Your task to perform on an android device: turn pop-ups on in chrome Image 0: 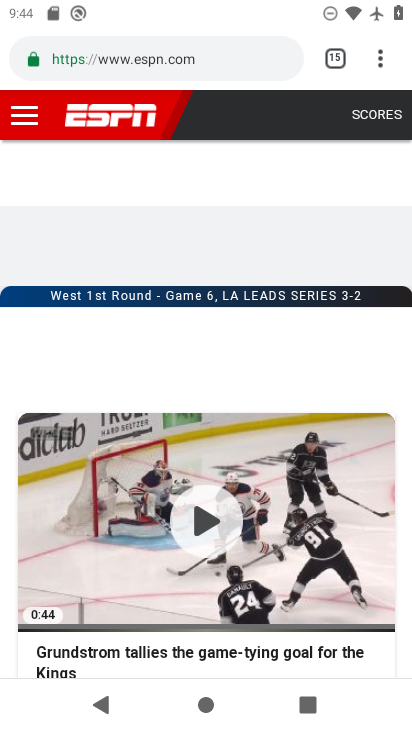
Step 0: press home button
Your task to perform on an android device: turn pop-ups on in chrome Image 1: 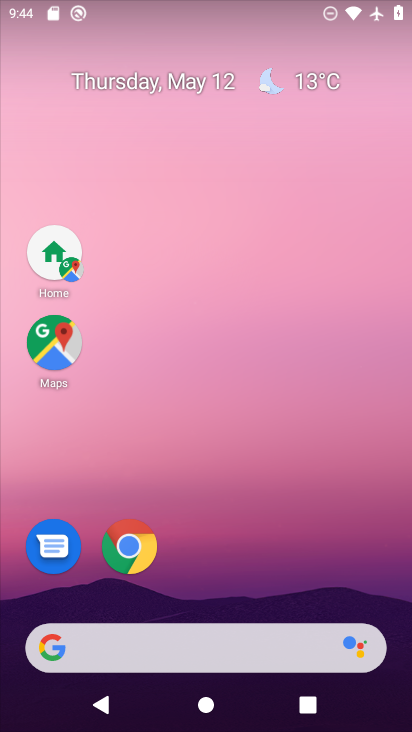
Step 1: drag from (138, 653) to (338, 156)
Your task to perform on an android device: turn pop-ups on in chrome Image 2: 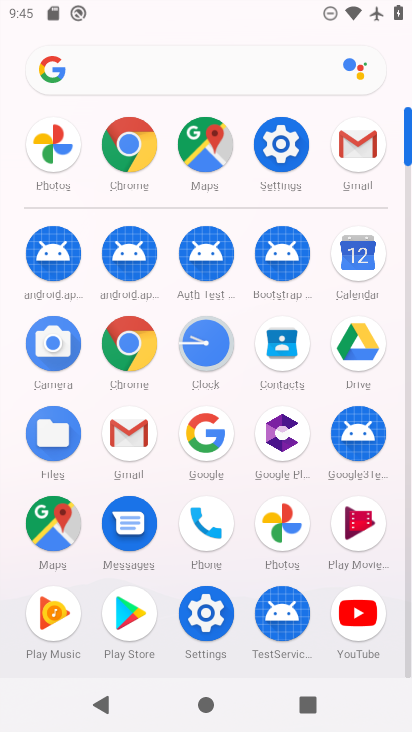
Step 2: click (133, 146)
Your task to perform on an android device: turn pop-ups on in chrome Image 3: 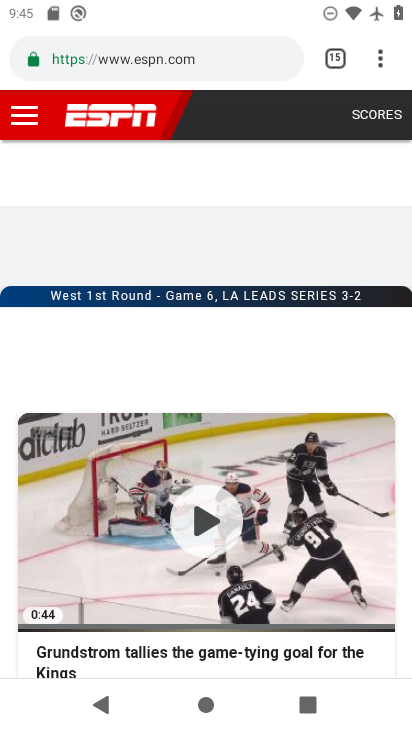
Step 3: drag from (380, 64) to (227, 576)
Your task to perform on an android device: turn pop-ups on in chrome Image 4: 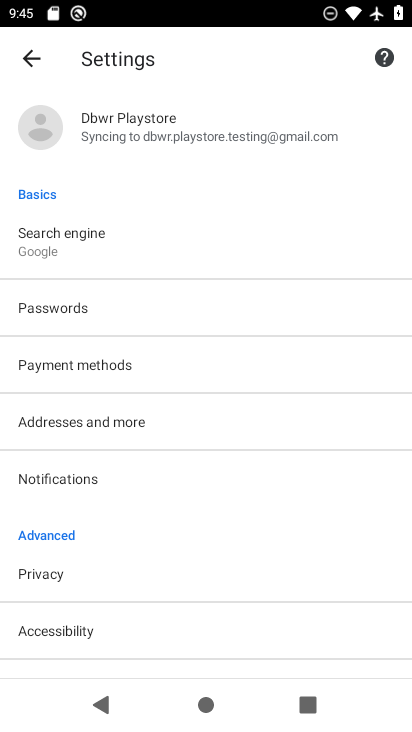
Step 4: drag from (112, 622) to (268, 266)
Your task to perform on an android device: turn pop-ups on in chrome Image 5: 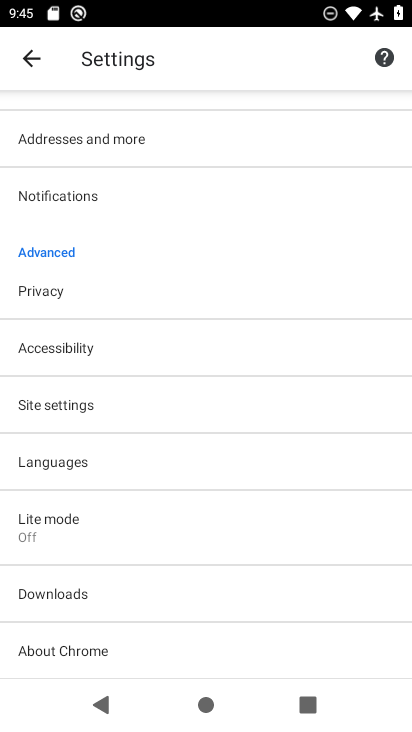
Step 5: click (64, 402)
Your task to perform on an android device: turn pop-ups on in chrome Image 6: 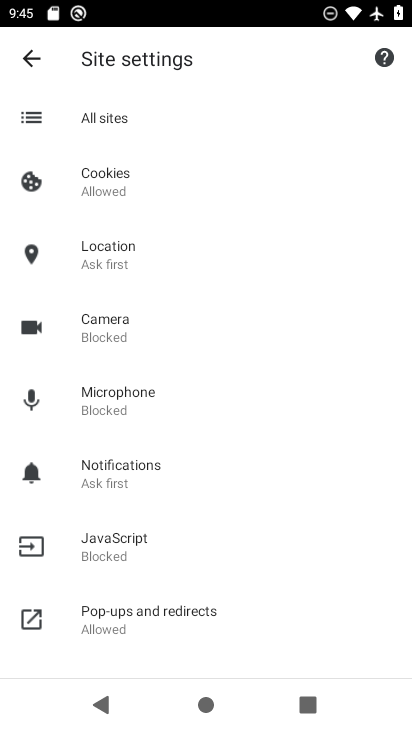
Step 6: click (140, 618)
Your task to perform on an android device: turn pop-ups on in chrome Image 7: 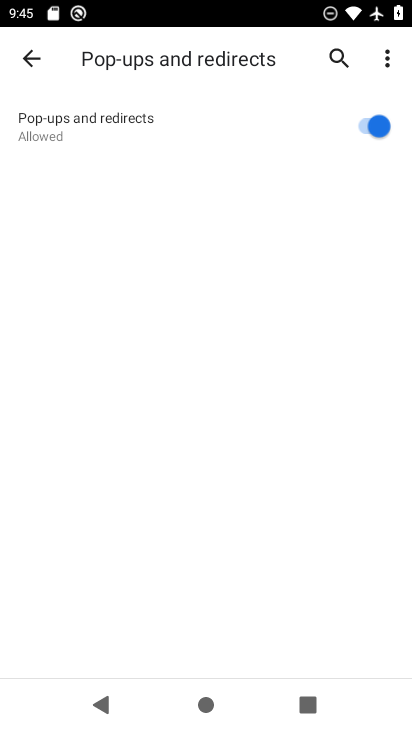
Step 7: task complete